Your task to perform on an android device: Go to notification settings Image 0: 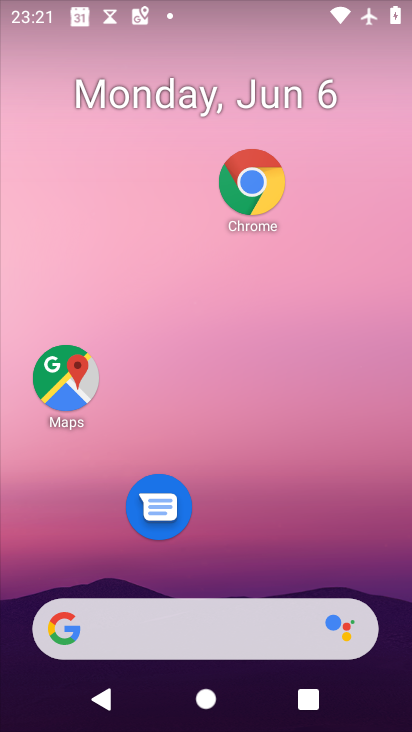
Step 0: drag from (246, 595) to (250, 205)
Your task to perform on an android device: Go to notification settings Image 1: 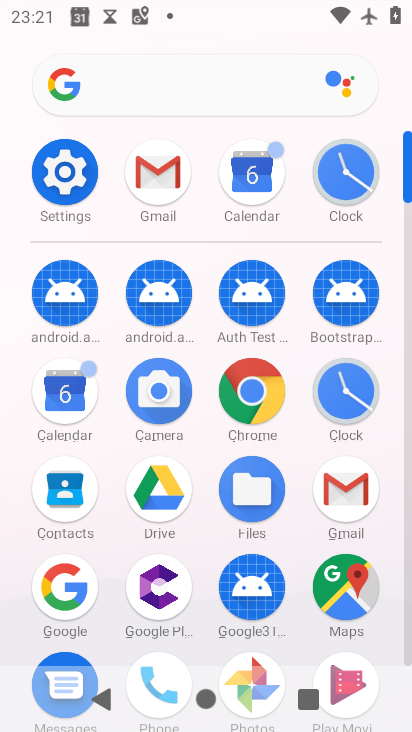
Step 1: click (68, 173)
Your task to perform on an android device: Go to notification settings Image 2: 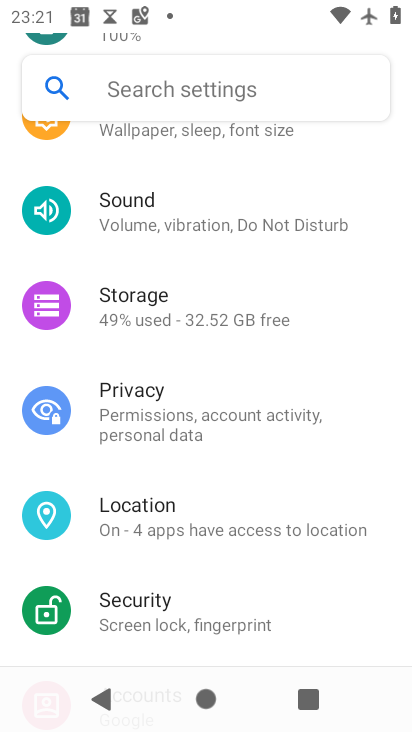
Step 2: drag from (190, 205) to (224, 613)
Your task to perform on an android device: Go to notification settings Image 3: 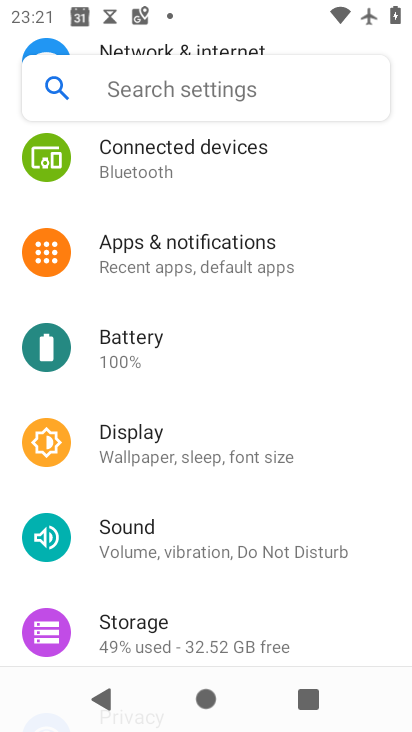
Step 3: click (171, 258)
Your task to perform on an android device: Go to notification settings Image 4: 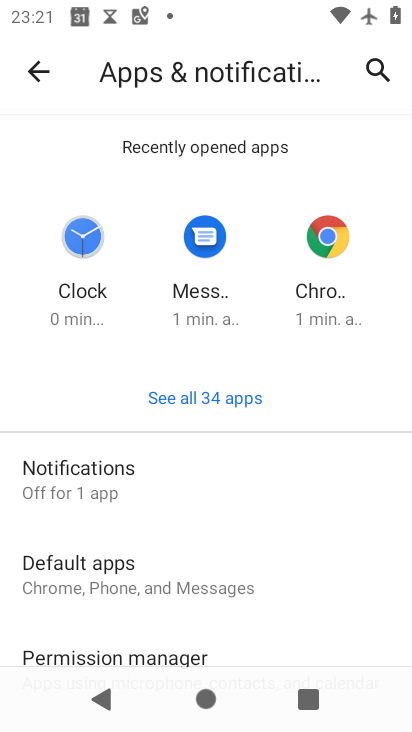
Step 4: task complete